Your task to perform on an android device: find photos in the google photos app Image 0: 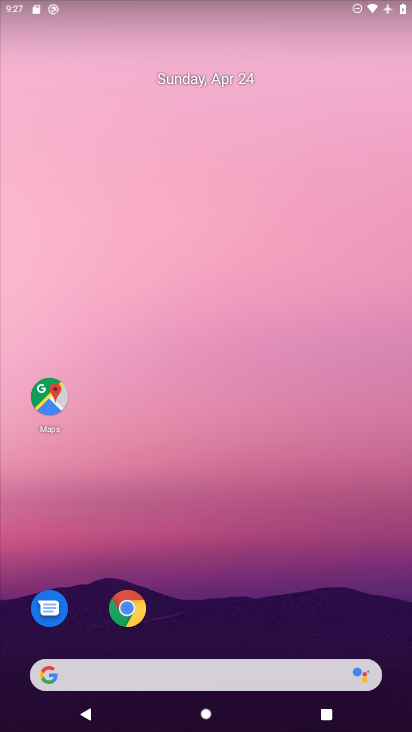
Step 0: drag from (222, 625) to (233, 217)
Your task to perform on an android device: find photos in the google photos app Image 1: 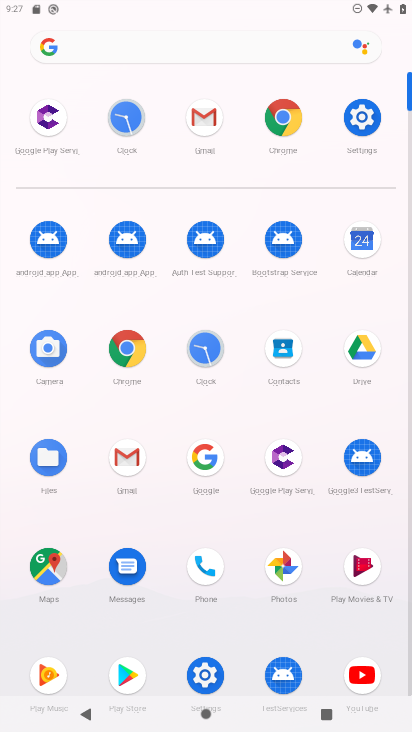
Step 1: click (279, 579)
Your task to perform on an android device: find photos in the google photos app Image 2: 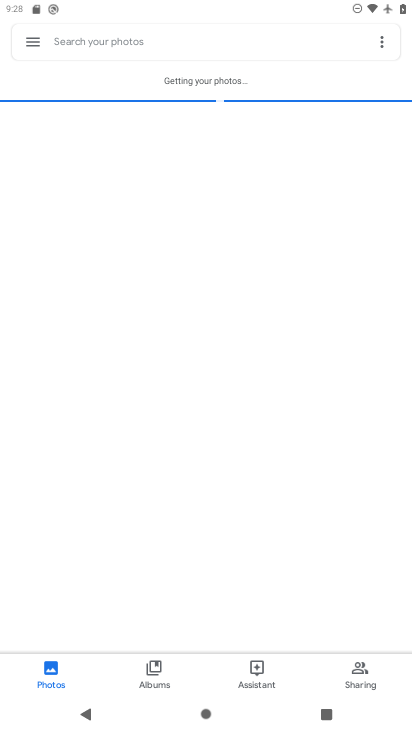
Step 2: click (150, 54)
Your task to perform on an android device: find photos in the google photos app Image 3: 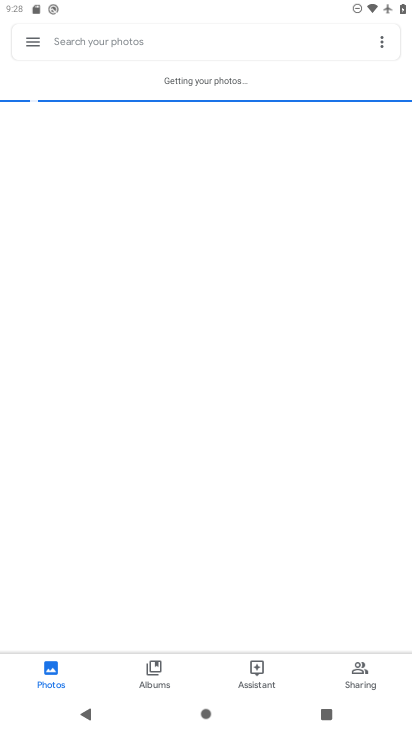
Step 3: click (135, 45)
Your task to perform on an android device: find photos in the google photos app Image 4: 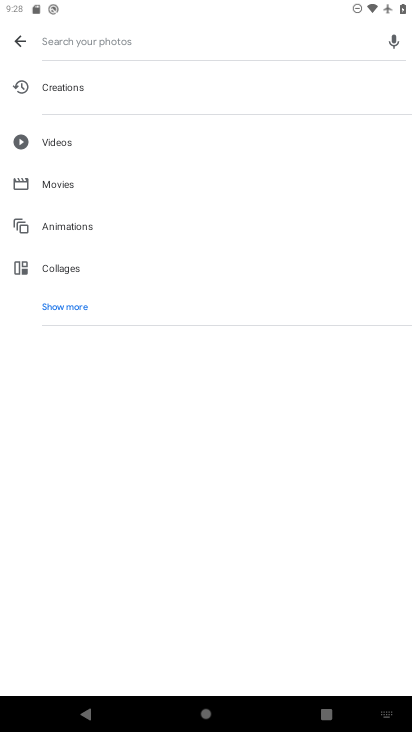
Step 4: type "aa"
Your task to perform on an android device: find photos in the google photos app Image 5: 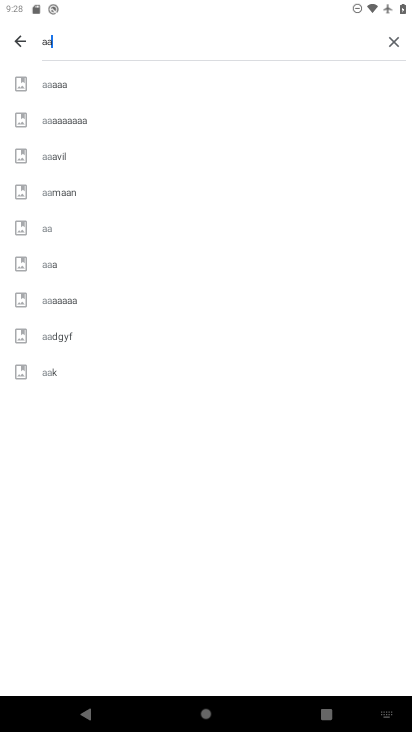
Step 5: click (77, 156)
Your task to perform on an android device: find photos in the google photos app Image 6: 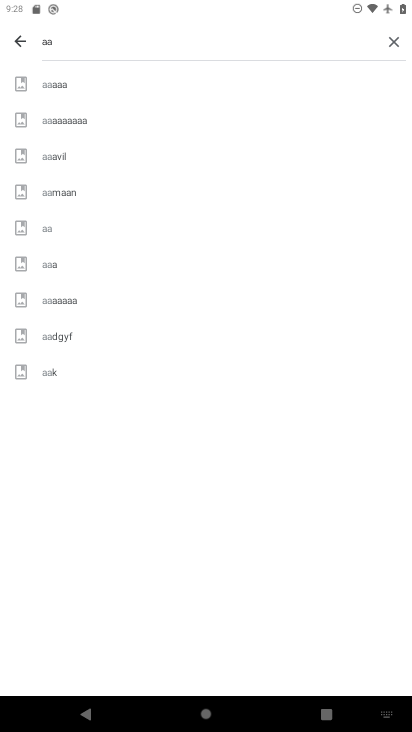
Step 6: click (58, 153)
Your task to perform on an android device: find photos in the google photos app Image 7: 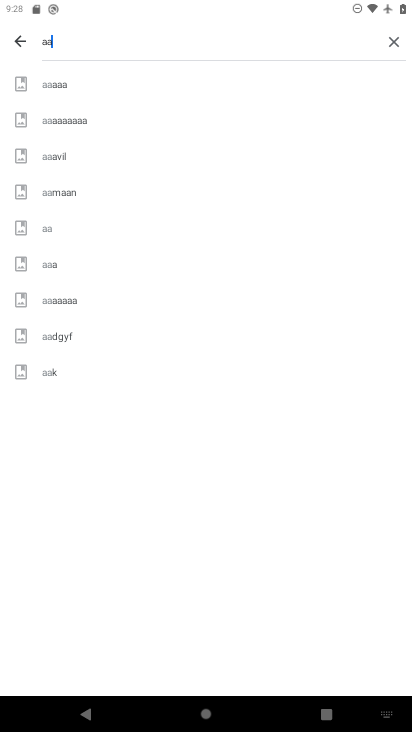
Step 7: click (64, 155)
Your task to perform on an android device: find photos in the google photos app Image 8: 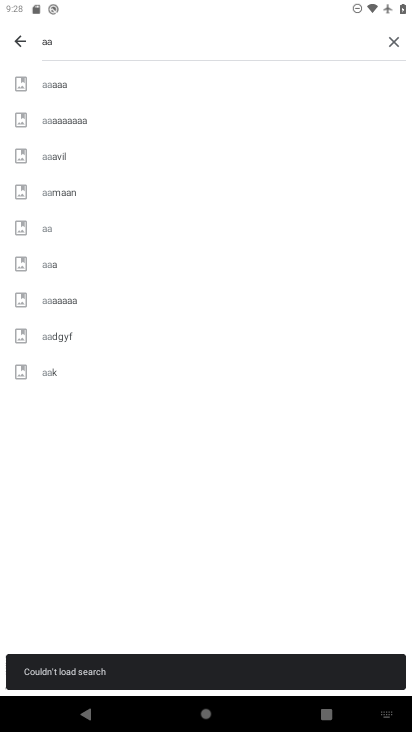
Step 8: click (71, 188)
Your task to perform on an android device: find photos in the google photos app Image 9: 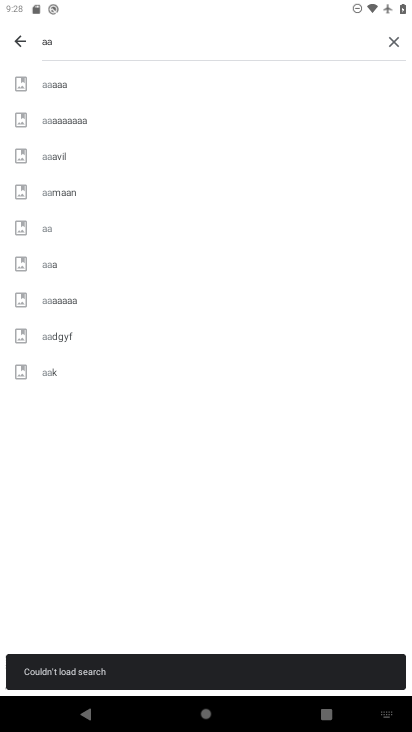
Step 9: click (49, 299)
Your task to perform on an android device: find photos in the google photos app Image 10: 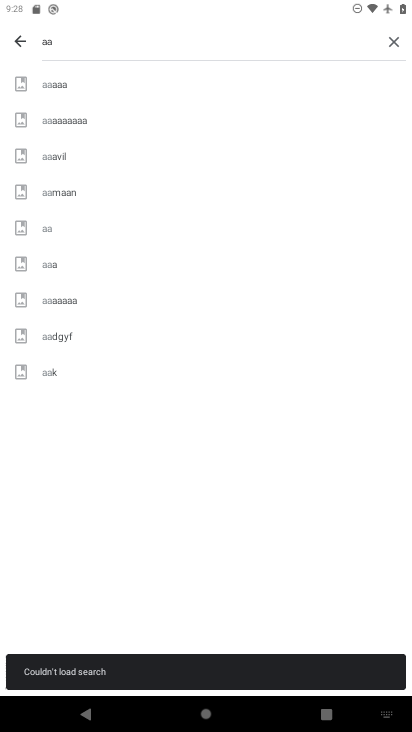
Step 10: click (49, 252)
Your task to perform on an android device: find photos in the google photos app Image 11: 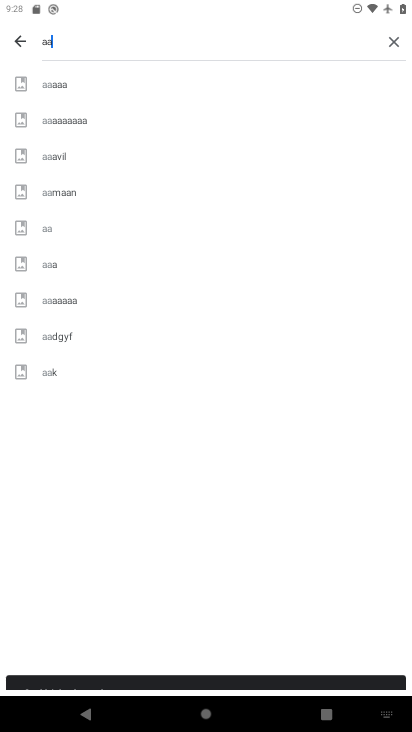
Step 11: click (47, 235)
Your task to perform on an android device: find photos in the google photos app Image 12: 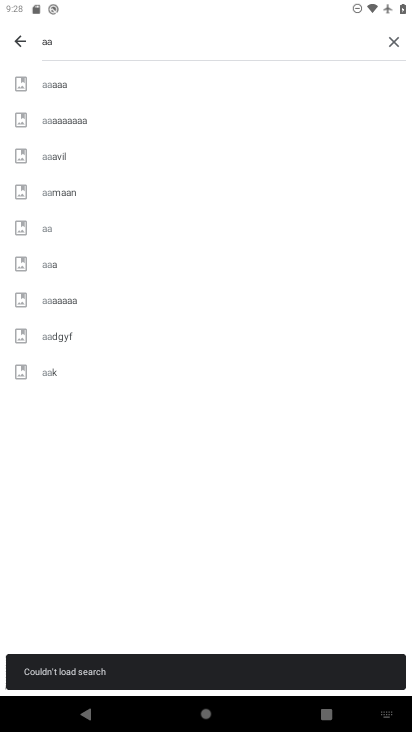
Step 12: click (47, 235)
Your task to perform on an android device: find photos in the google photos app Image 13: 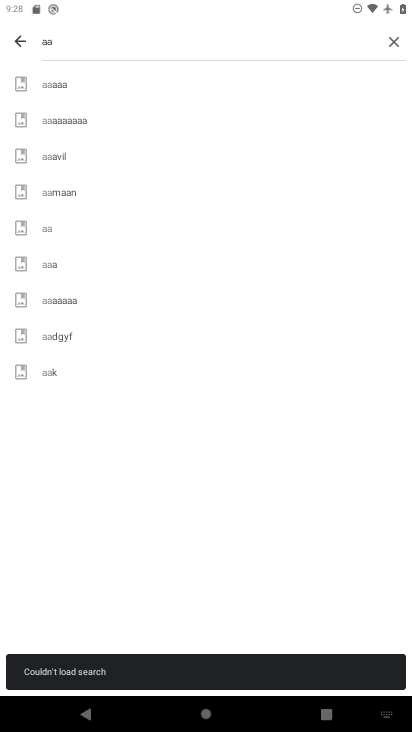
Step 13: click (57, 192)
Your task to perform on an android device: find photos in the google photos app Image 14: 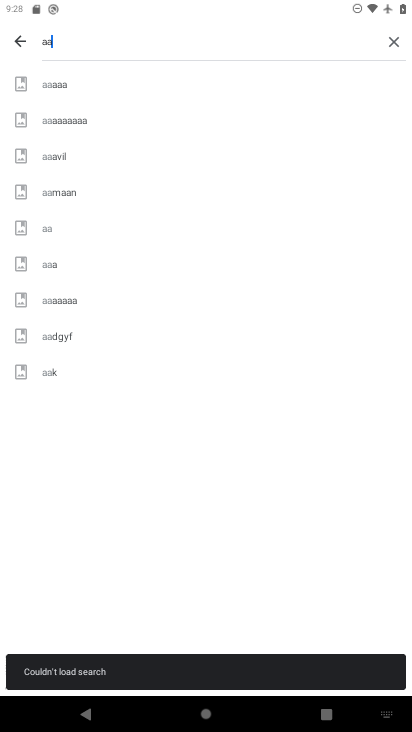
Step 14: click (42, 154)
Your task to perform on an android device: find photos in the google photos app Image 15: 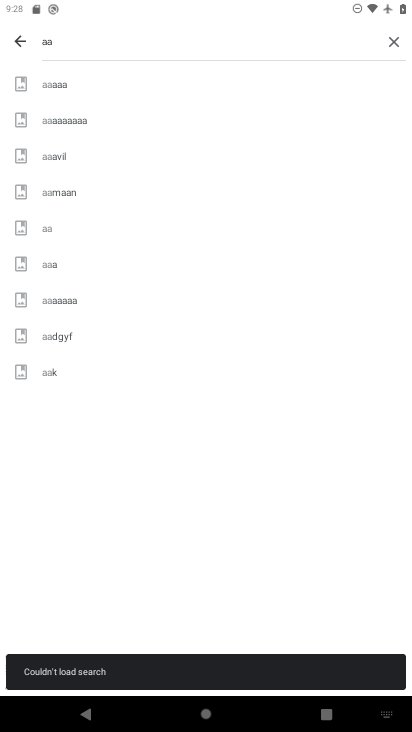
Step 15: click (66, 118)
Your task to perform on an android device: find photos in the google photos app Image 16: 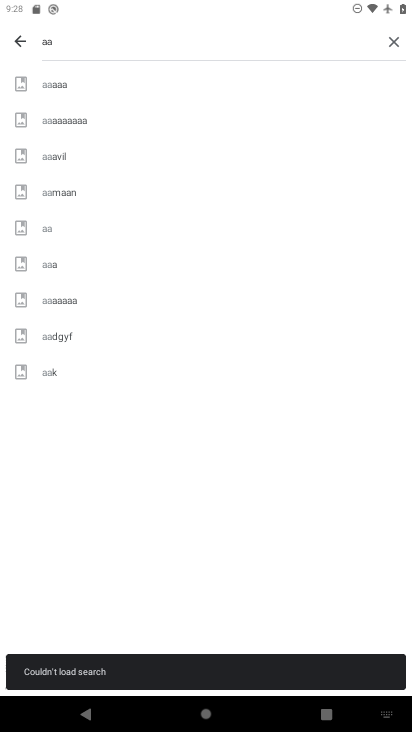
Step 16: click (62, 83)
Your task to perform on an android device: find photos in the google photos app Image 17: 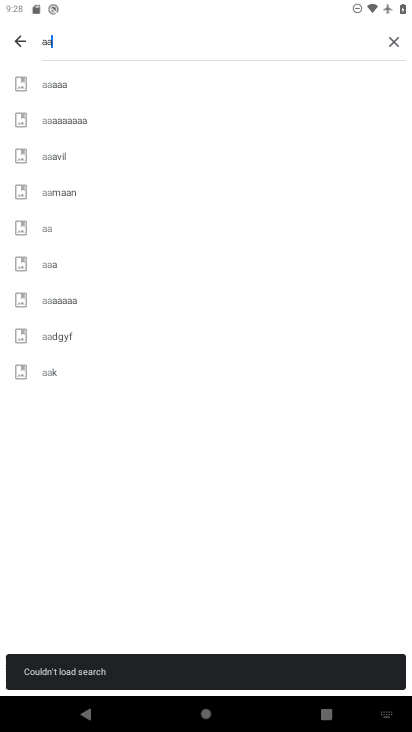
Step 17: click (50, 374)
Your task to perform on an android device: find photos in the google photos app Image 18: 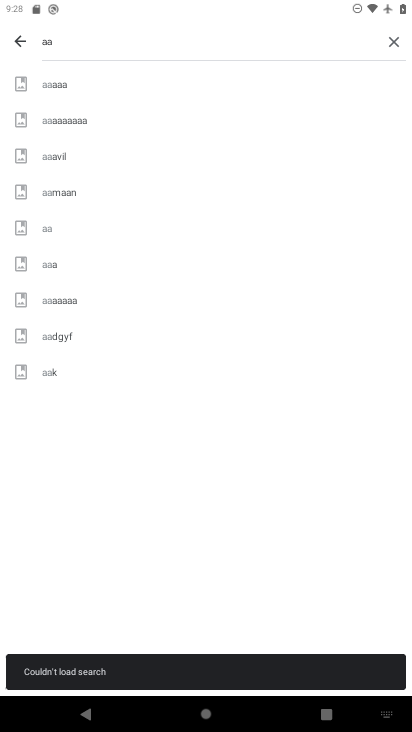
Step 18: click (67, 330)
Your task to perform on an android device: find photos in the google photos app Image 19: 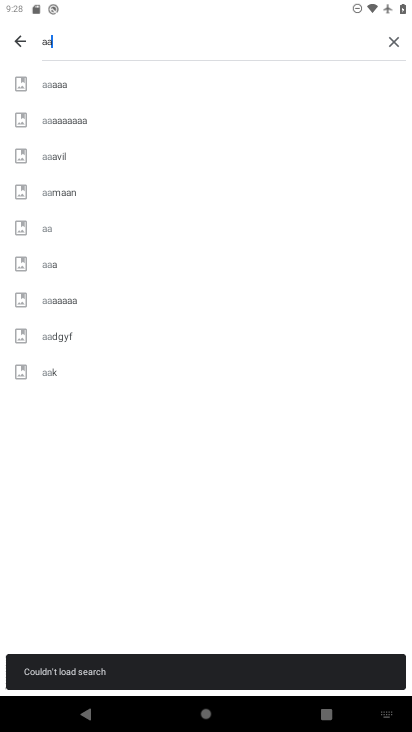
Step 19: click (67, 307)
Your task to perform on an android device: find photos in the google photos app Image 20: 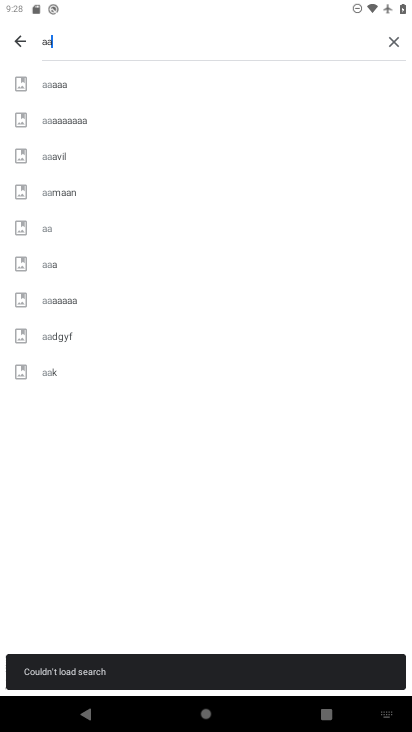
Step 20: click (56, 273)
Your task to perform on an android device: find photos in the google photos app Image 21: 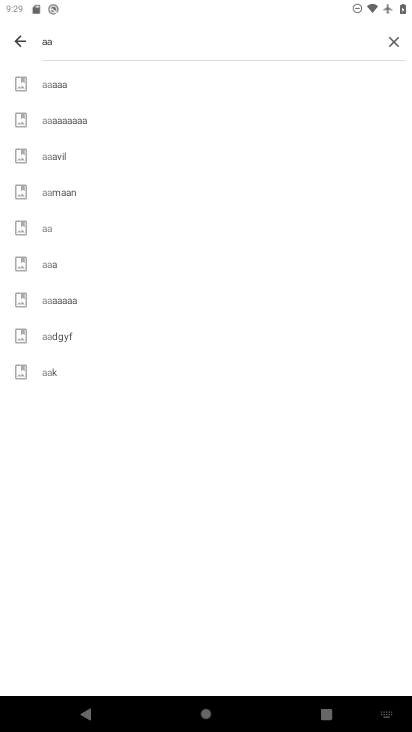
Step 21: task complete